Your task to perform on an android device: Open calendar and show me the fourth week of next month Image 0: 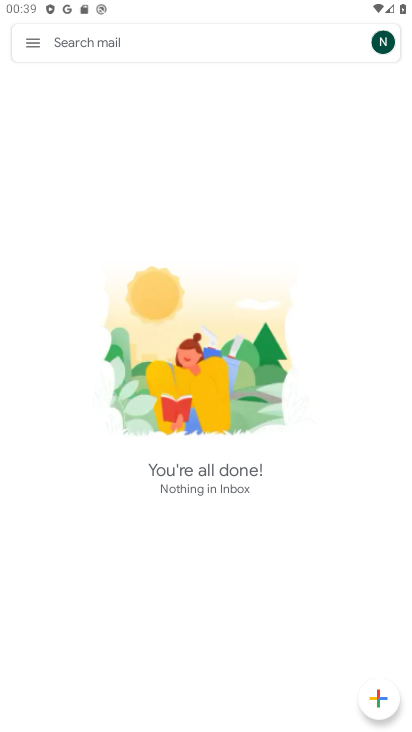
Step 0: press home button
Your task to perform on an android device: Open calendar and show me the fourth week of next month Image 1: 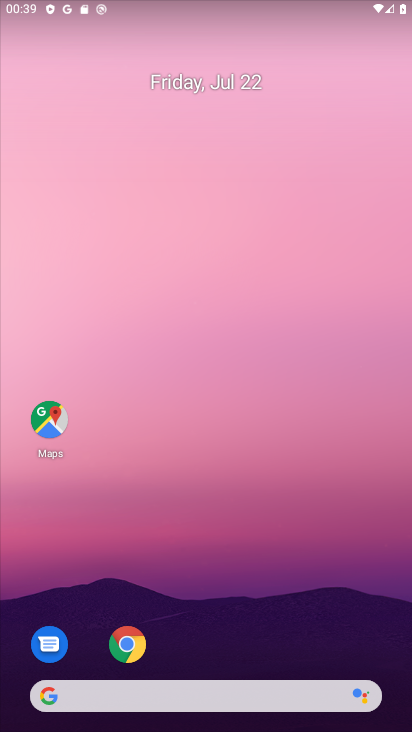
Step 1: drag from (333, 724) to (194, 21)
Your task to perform on an android device: Open calendar and show me the fourth week of next month Image 2: 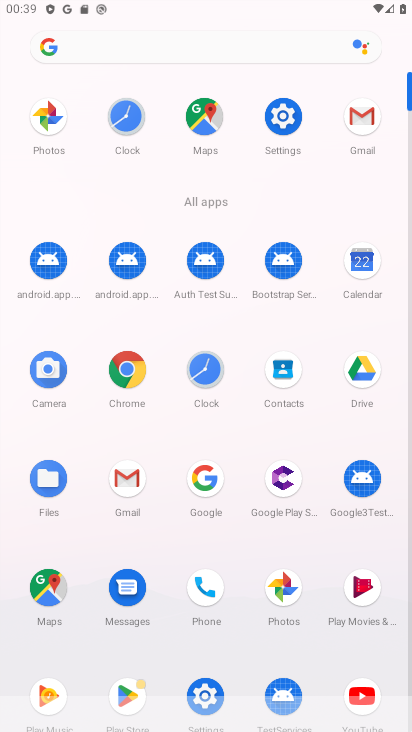
Step 2: click (362, 277)
Your task to perform on an android device: Open calendar and show me the fourth week of next month Image 3: 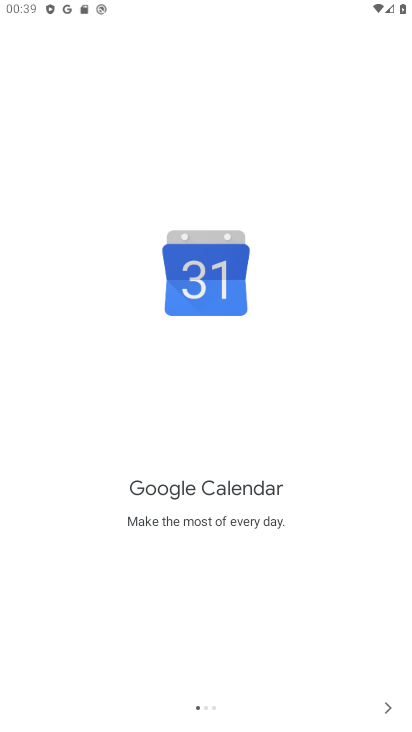
Step 3: click (381, 700)
Your task to perform on an android device: Open calendar and show me the fourth week of next month Image 4: 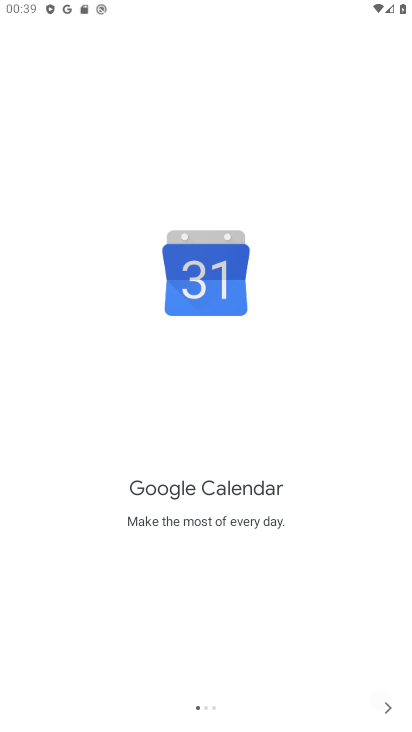
Step 4: click (381, 700)
Your task to perform on an android device: Open calendar and show me the fourth week of next month Image 5: 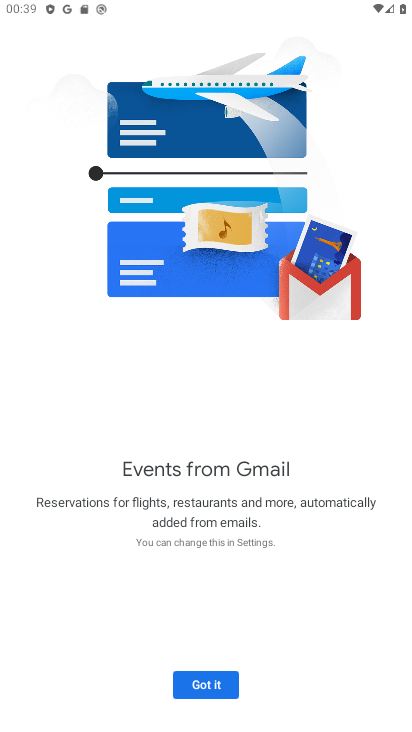
Step 5: click (381, 700)
Your task to perform on an android device: Open calendar and show me the fourth week of next month Image 6: 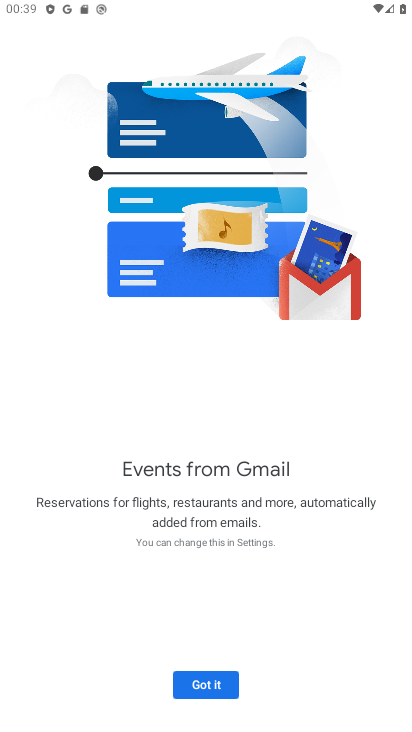
Step 6: click (208, 682)
Your task to perform on an android device: Open calendar and show me the fourth week of next month Image 7: 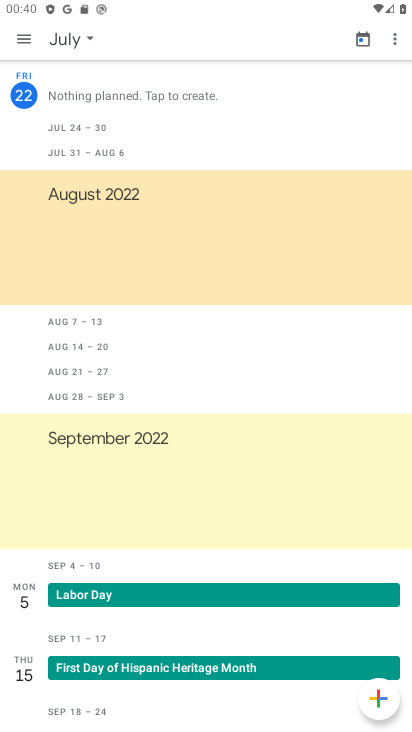
Step 7: click (76, 38)
Your task to perform on an android device: Open calendar and show me the fourth week of next month Image 8: 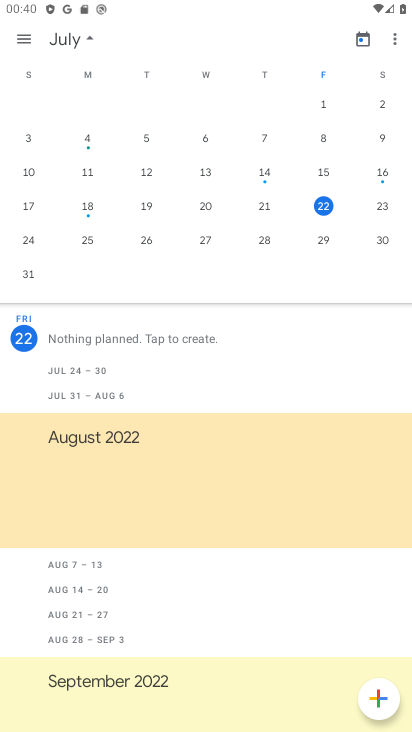
Step 8: drag from (336, 193) to (17, 240)
Your task to perform on an android device: Open calendar and show me the fourth week of next month Image 9: 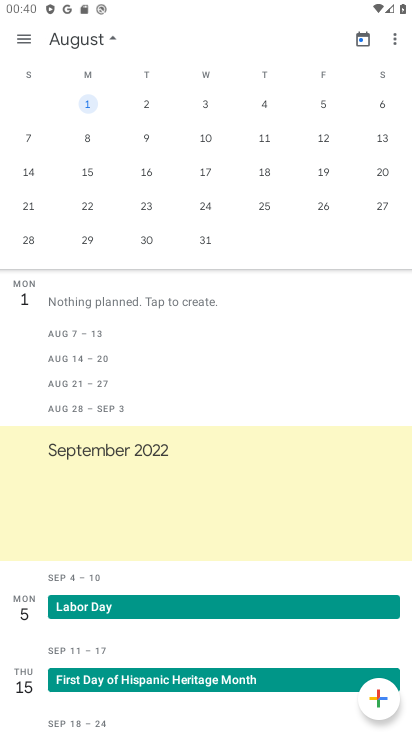
Step 9: click (28, 209)
Your task to perform on an android device: Open calendar and show me the fourth week of next month Image 10: 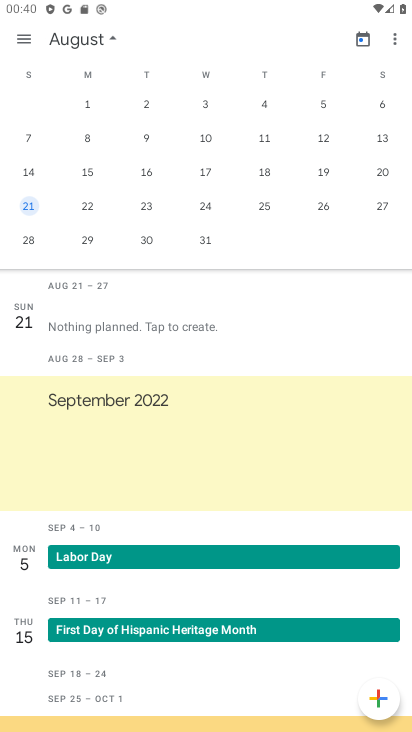
Step 10: task complete